Your task to perform on an android device: turn off location Image 0: 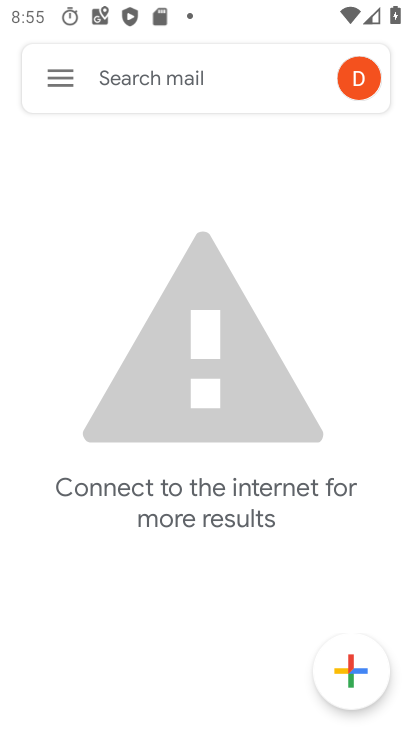
Step 0: press home button
Your task to perform on an android device: turn off location Image 1: 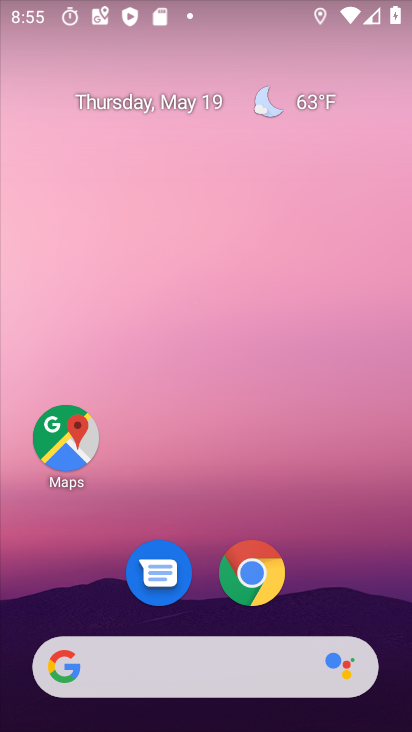
Step 1: drag from (354, 601) to (287, 2)
Your task to perform on an android device: turn off location Image 2: 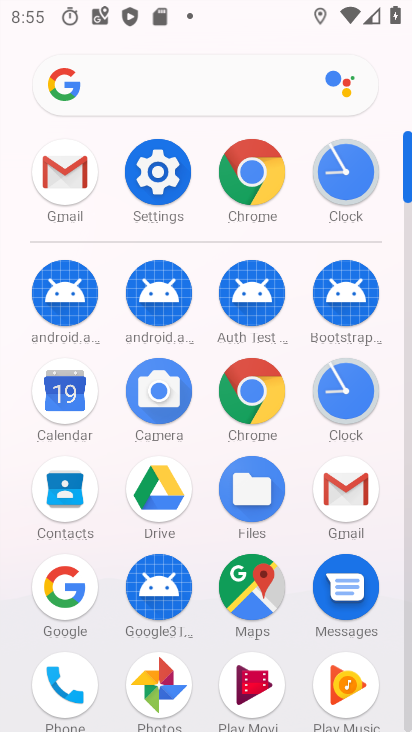
Step 2: click (157, 168)
Your task to perform on an android device: turn off location Image 3: 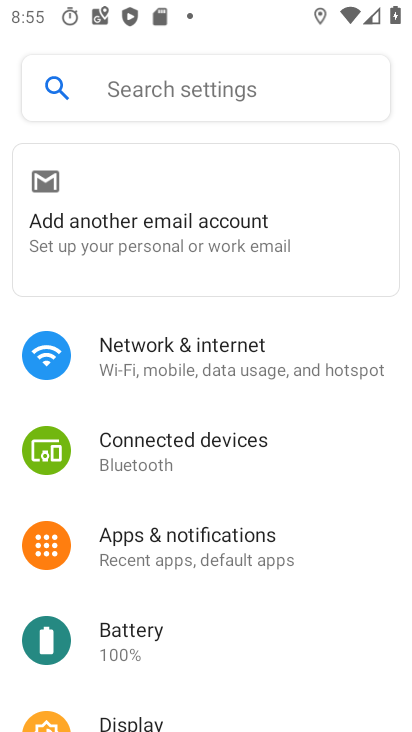
Step 3: drag from (325, 617) to (356, 113)
Your task to perform on an android device: turn off location Image 4: 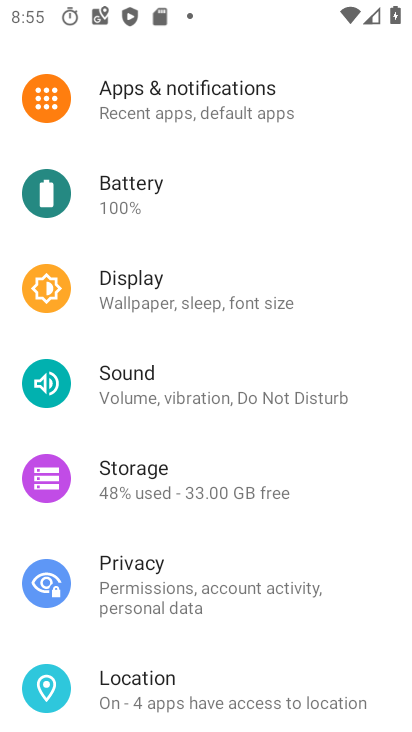
Step 4: click (115, 687)
Your task to perform on an android device: turn off location Image 5: 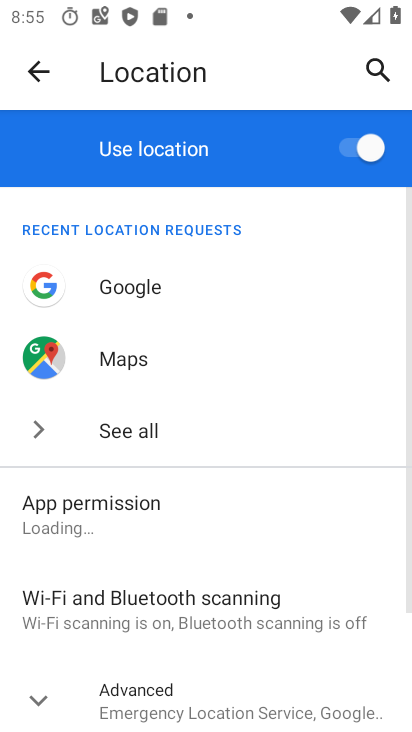
Step 5: click (369, 152)
Your task to perform on an android device: turn off location Image 6: 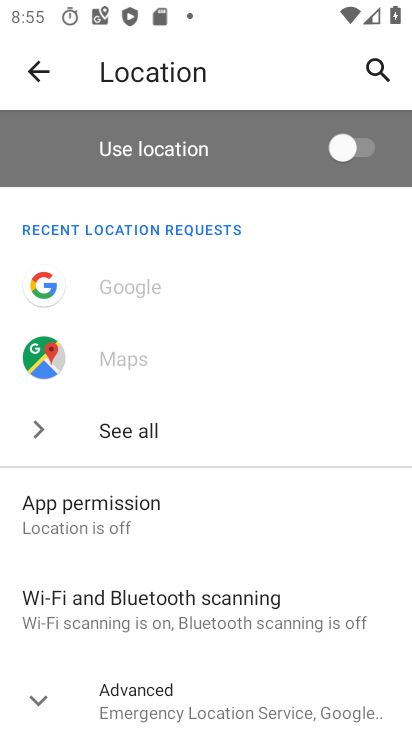
Step 6: task complete